Your task to perform on an android device: Go to internet settings Image 0: 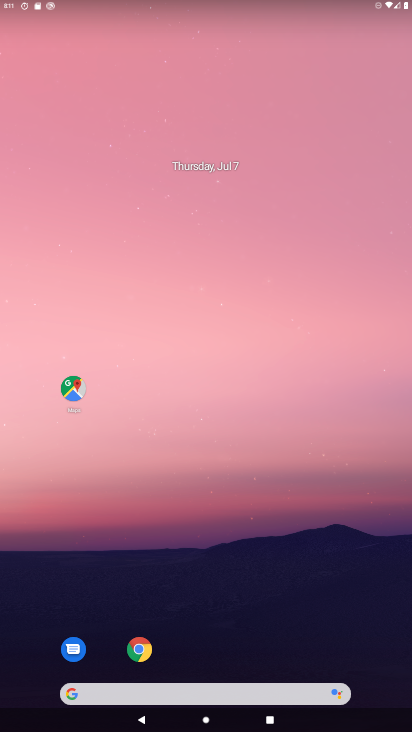
Step 0: drag from (206, 638) to (205, 71)
Your task to perform on an android device: Go to internet settings Image 1: 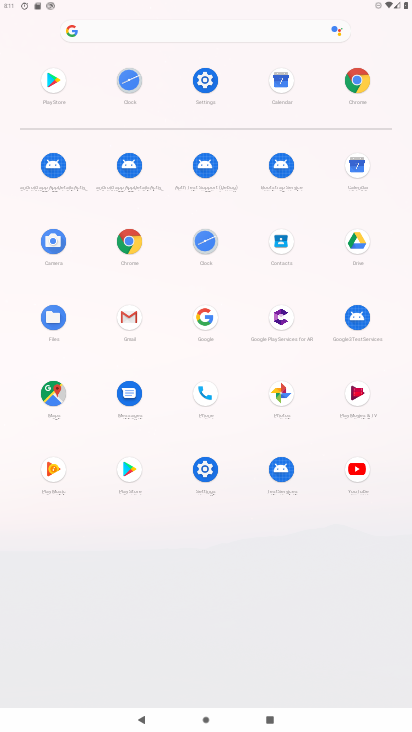
Step 1: click (203, 77)
Your task to perform on an android device: Go to internet settings Image 2: 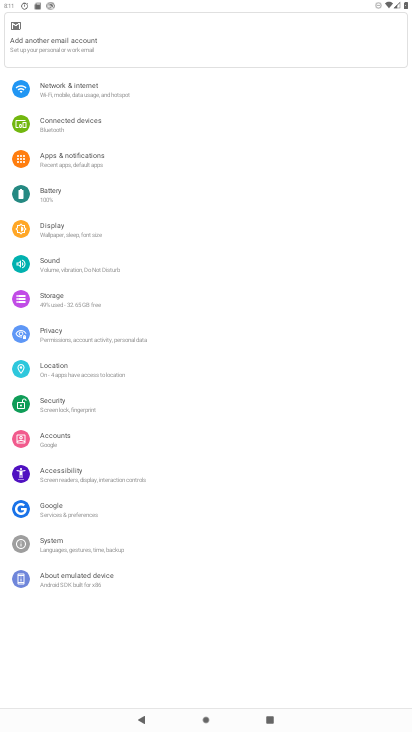
Step 2: click (74, 84)
Your task to perform on an android device: Go to internet settings Image 3: 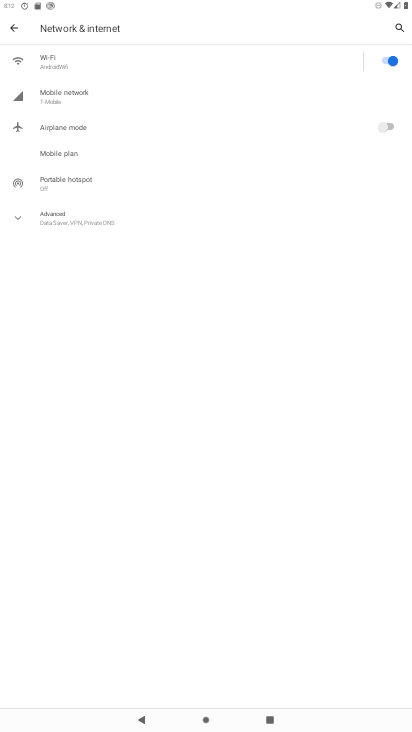
Step 3: click (48, 218)
Your task to perform on an android device: Go to internet settings Image 4: 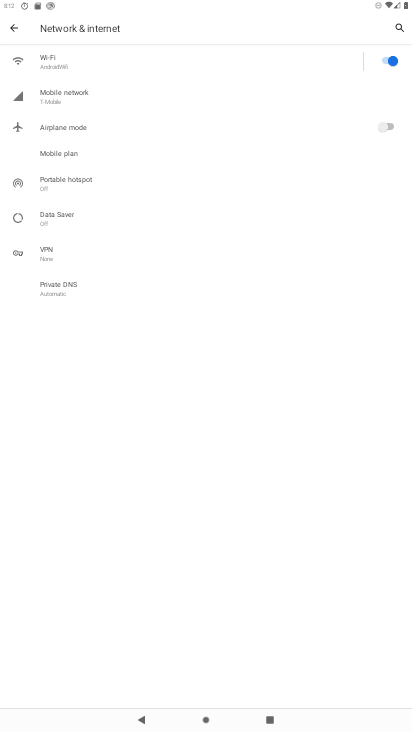
Step 4: task complete